Your task to perform on an android device: check battery use Image 0: 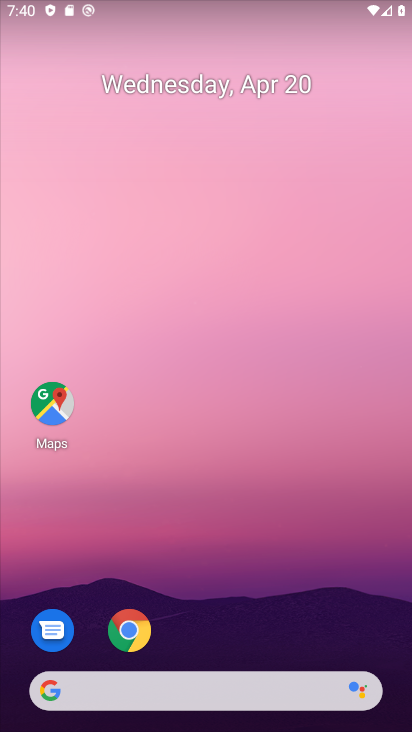
Step 0: drag from (64, 10) to (75, 230)
Your task to perform on an android device: check battery use Image 1: 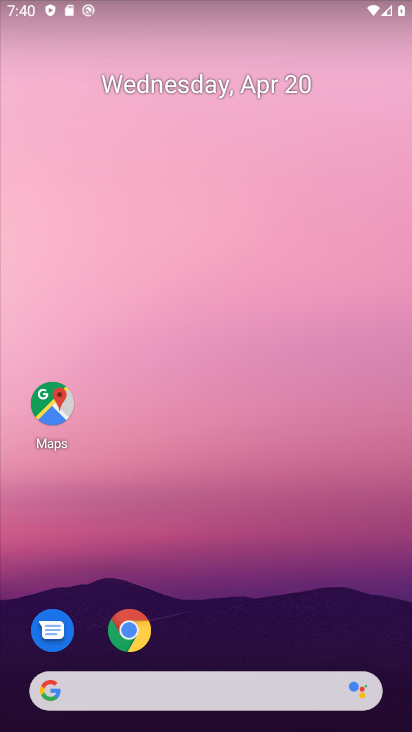
Step 1: drag from (208, 543) to (284, 51)
Your task to perform on an android device: check battery use Image 2: 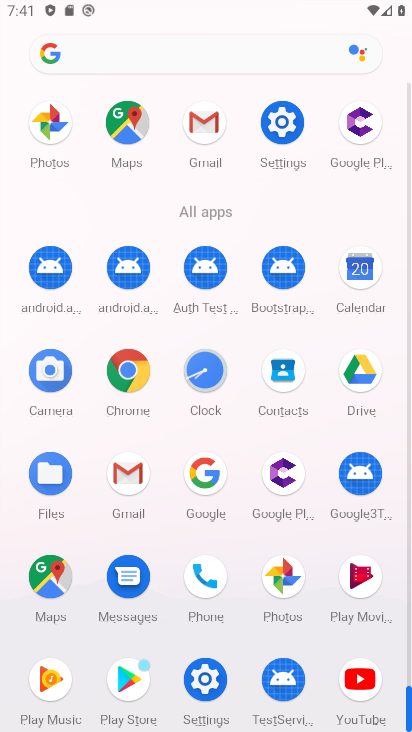
Step 2: click (279, 140)
Your task to perform on an android device: check battery use Image 3: 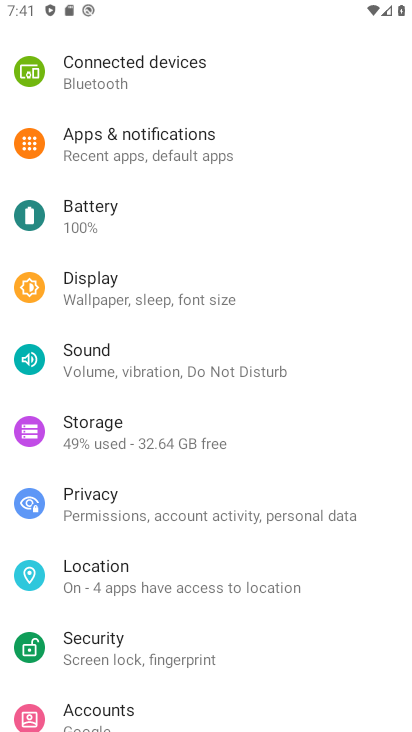
Step 3: click (196, 226)
Your task to perform on an android device: check battery use Image 4: 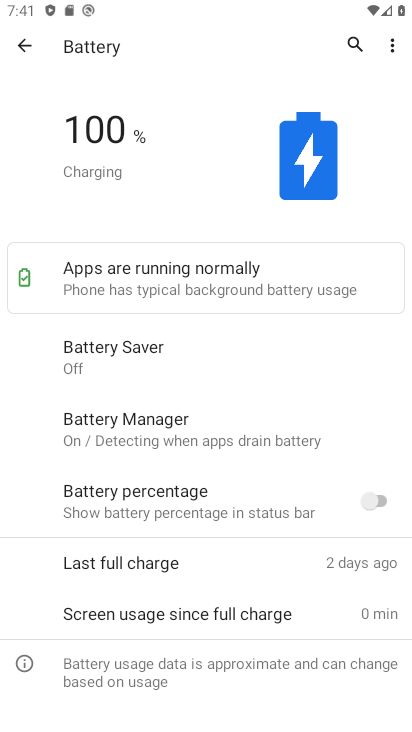
Step 4: task complete